Your task to perform on an android device: change the clock style Image 0: 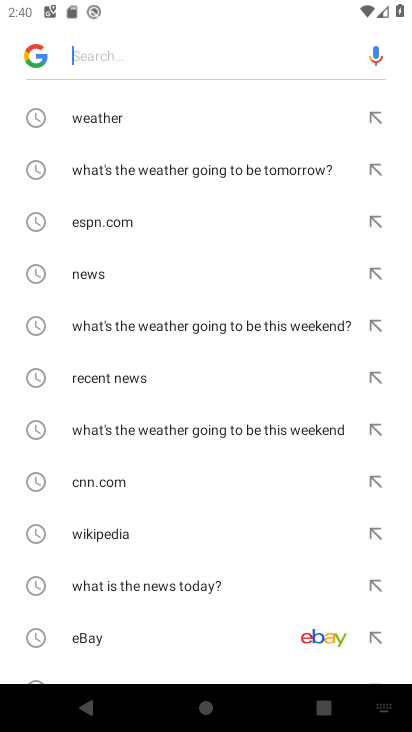
Step 0: press home button
Your task to perform on an android device: change the clock style Image 1: 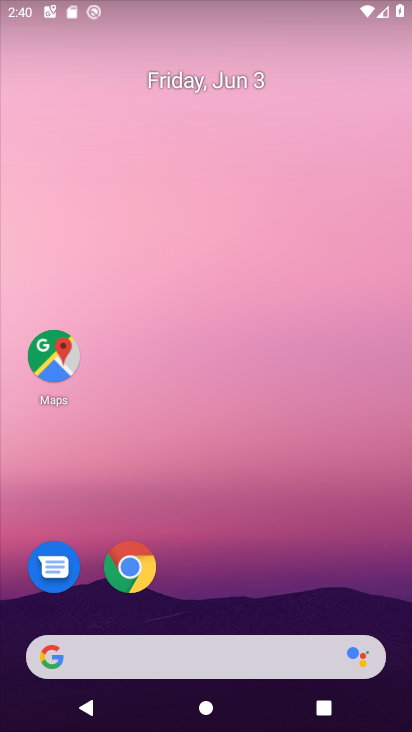
Step 1: drag from (229, 508) to (267, 239)
Your task to perform on an android device: change the clock style Image 2: 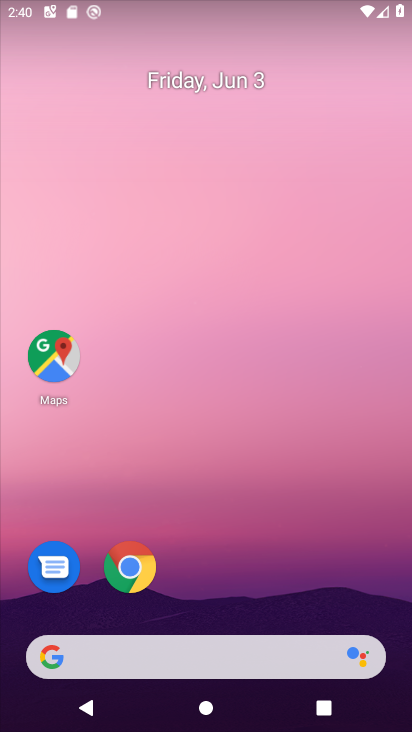
Step 2: drag from (249, 584) to (284, 204)
Your task to perform on an android device: change the clock style Image 3: 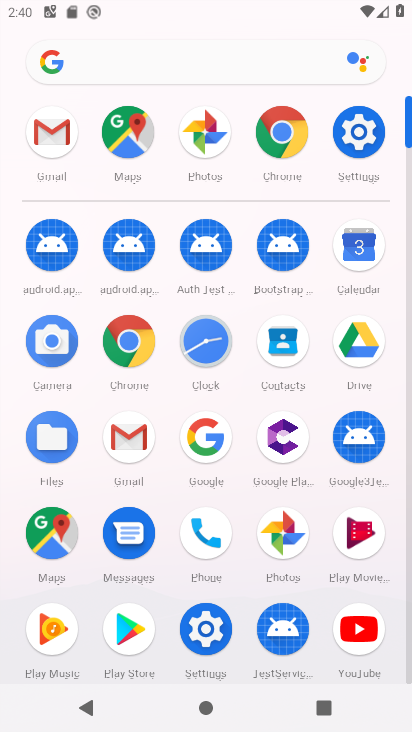
Step 3: click (182, 334)
Your task to perform on an android device: change the clock style Image 4: 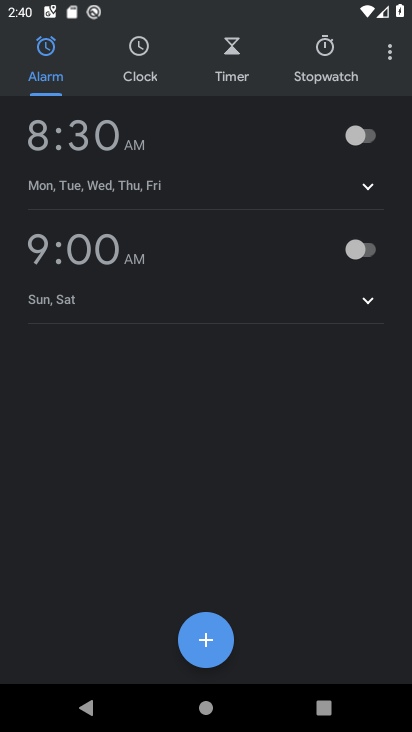
Step 4: click (389, 59)
Your task to perform on an android device: change the clock style Image 5: 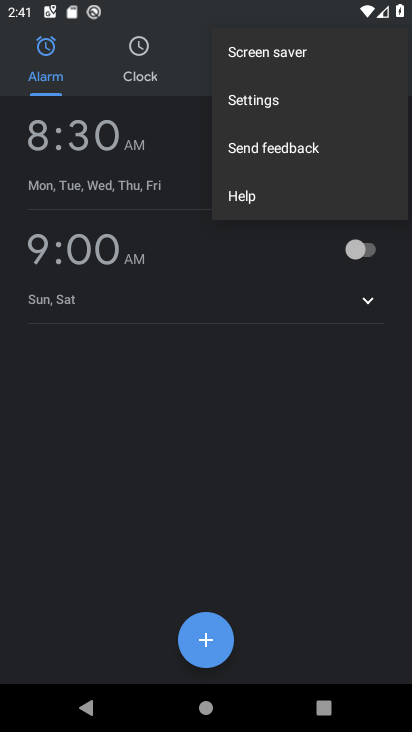
Step 5: click (273, 99)
Your task to perform on an android device: change the clock style Image 6: 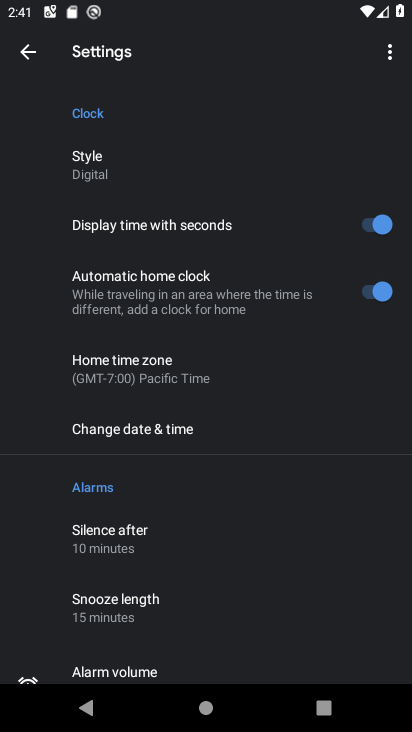
Step 6: click (164, 172)
Your task to perform on an android device: change the clock style Image 7: 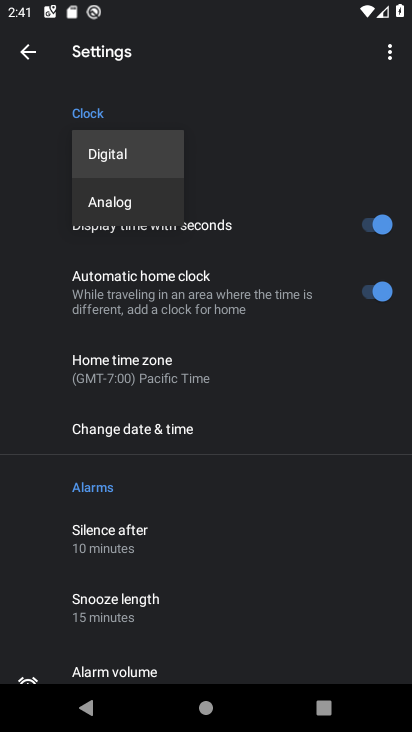
Step 7: click (135, 197)
Your task to perform on an android device: change the clock style Image 8: 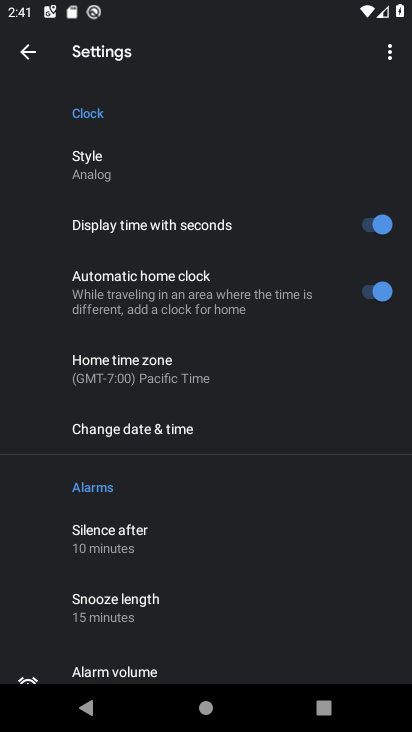
Step 8: task complete